Your task to perform on an android device: Open Maps and search for coffee Image 0: 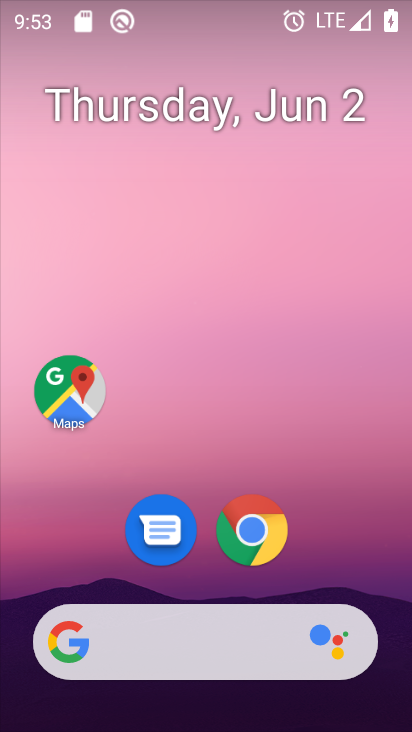
Step 0: drag from (157, 606) to (161, 302)
Your task to perform on an android device: Open Maps and search for coffee Image 1: 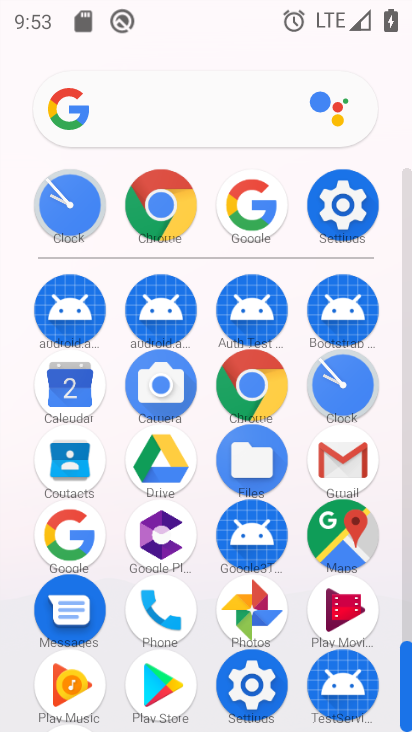
Step 1: click (338, 544)
Your task to perform on an android device: Open Maps and search for coffee Image 2: 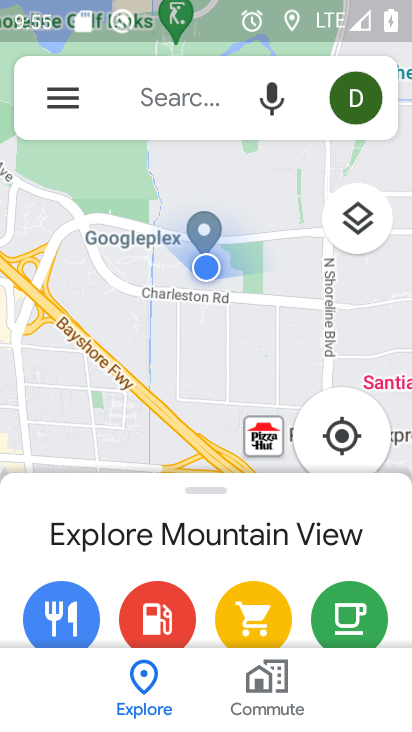
Step 2: click (167, 83)
Your task to perform on an android device: Open Maps and search for coffee Image 3: 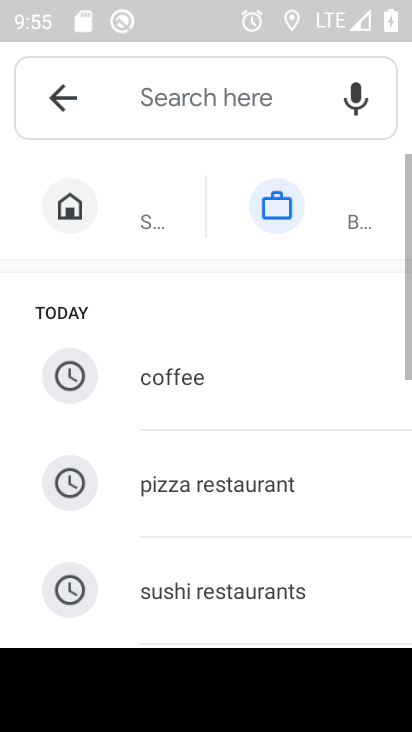
Step 3: click (169, 387)
Your task to perform on an android device: Open Maps and search for coffee Image 4: 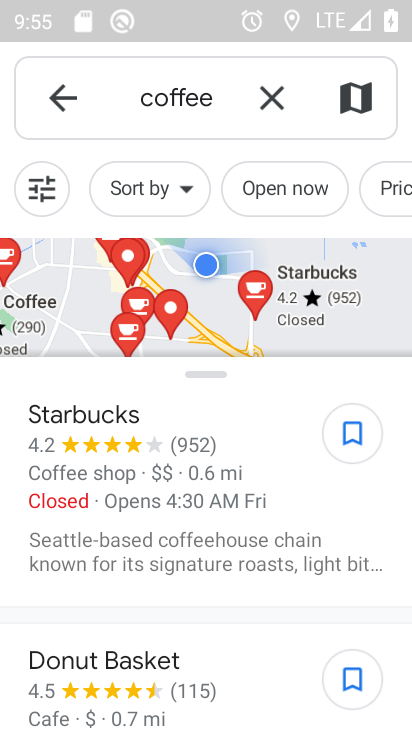
Step 4: task complete